Your task to perform on an android device: Go to Google maps Image 0: 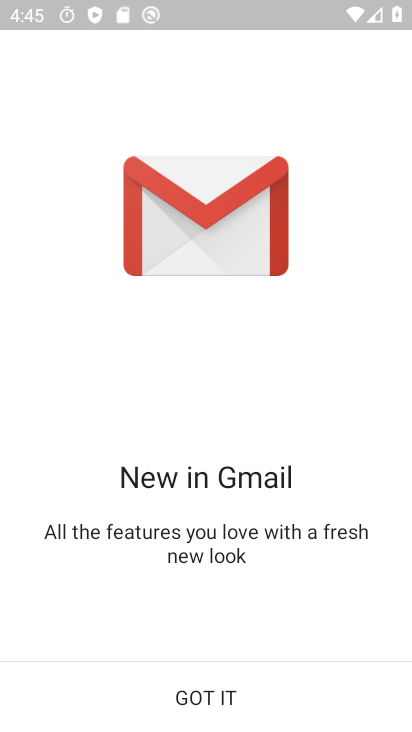
Step 0: press home button
Your task to perform on an android device: Go to Google maps Image 1: 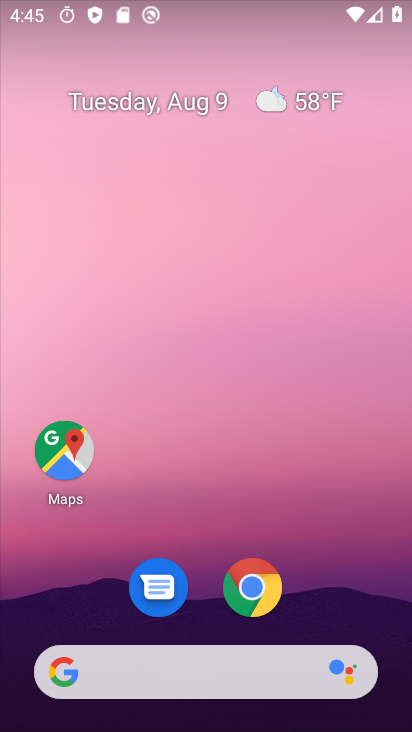
Step 1: click (68, 439)
Your task to perform on an android device: Go to Google maps Image 2: 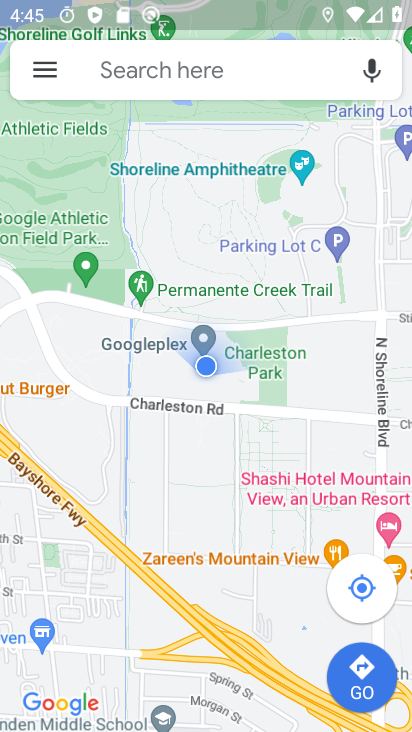
Step 2: task complete